Your task to perform on an android device: empty trash in the gmail app Image 0: 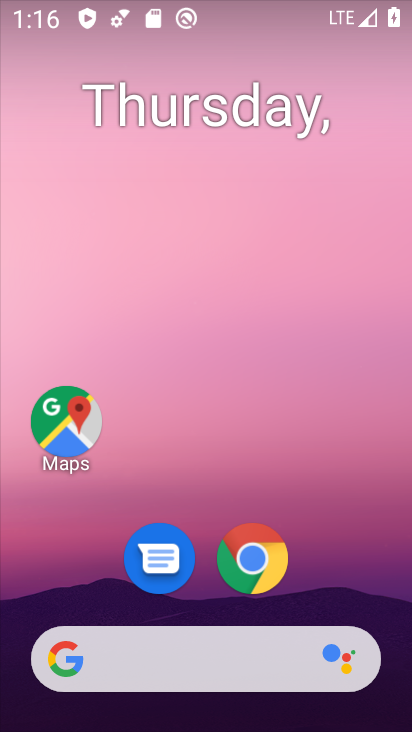
Step 0: drag from (378, 559) to (349, 137)
Your task to perform on an android device: empty trash in the gmail app Image 1: 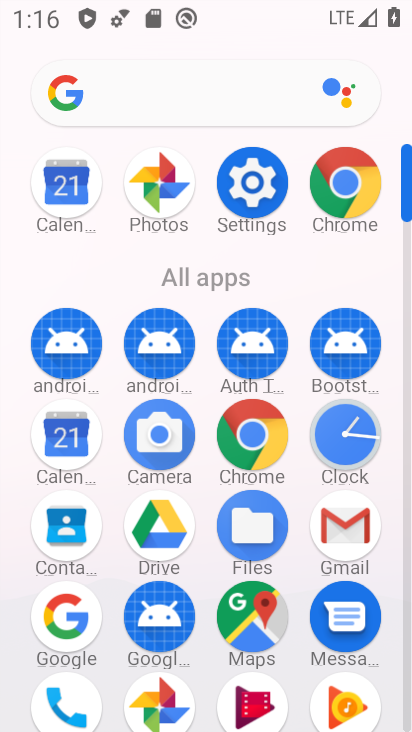
Step 1: click (352, 531)
Your task to perform on an android device: empty trash in the gmail app Image 2: 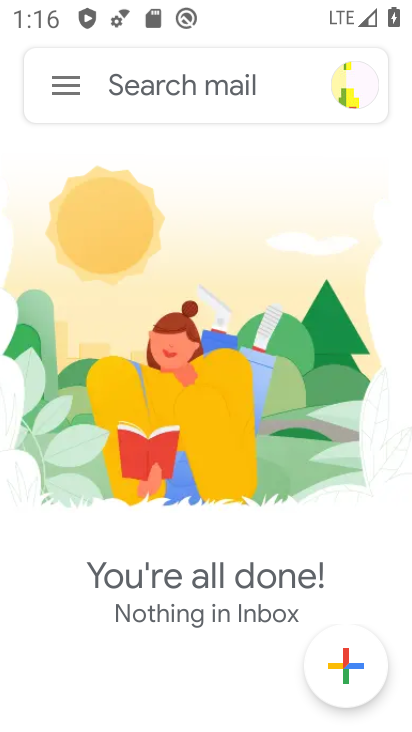
Step 2: click (69, 82)
Your task to perform on an android device: empty trash in the gmail app Image 3: 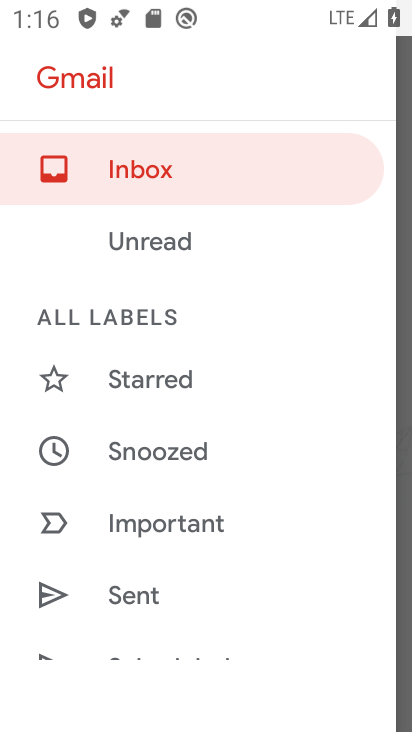
Step 3: drag from (188, 579) to (175, 196)
Your task to perform on an android device: empty trash in the gmail app Image 4: 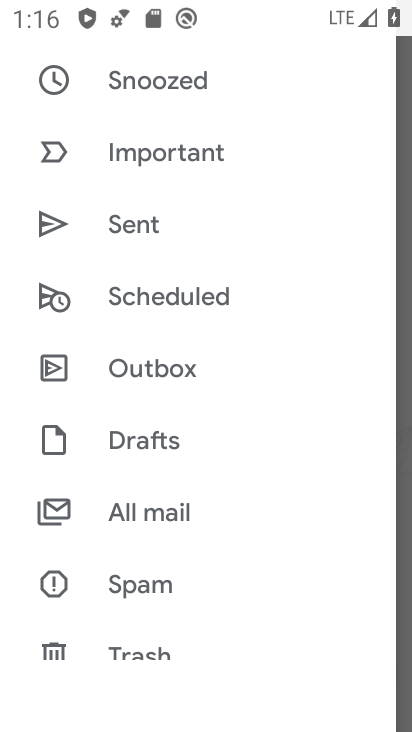
Step 4: drag from (181, 618) to (174, 344)
Your task to perform on an android device: empty trash in the gmail app Image 5: 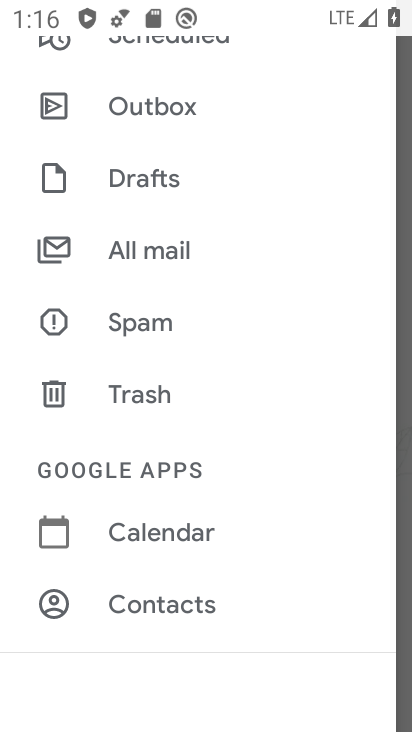
Step 5: click (158, 398)
Your task to perform on an android device: empty trash in the gmail app Image 6: 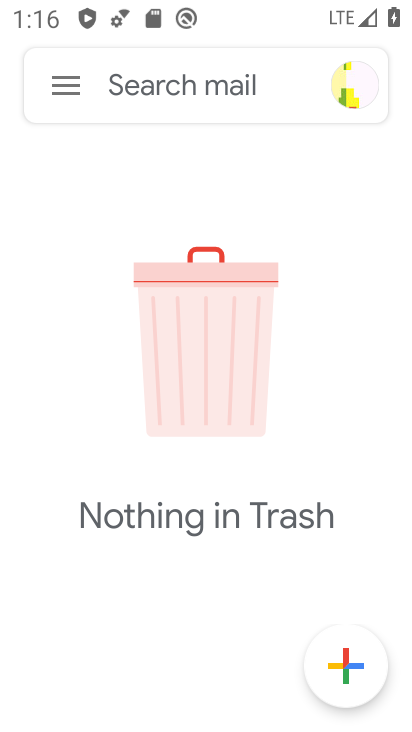
Step 6: task complete